Your task to perform on an android device: Open Google Chrome and open the bookmarks view Image 0: 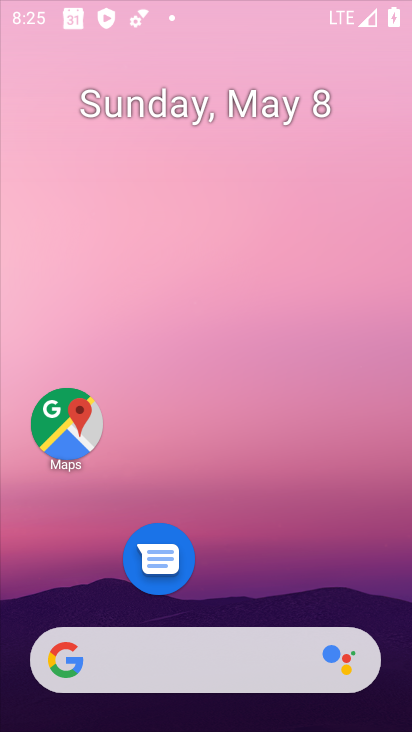
Step 0: drag from (316, 644) to (240, 6)
Your task to perform on an android device: Open Google Chrome and open the bookmarks view Image 1: 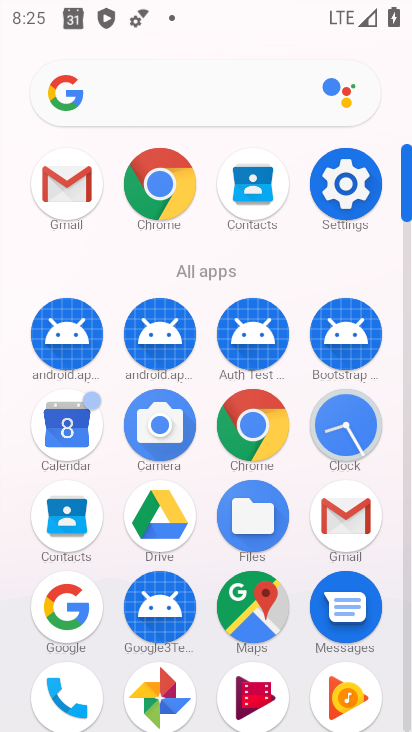
Step 1: drag from (290, 650) to (305, 175)
Your task to perform on an android device: Open Google Chrome and open the bookmarks view Image 2: 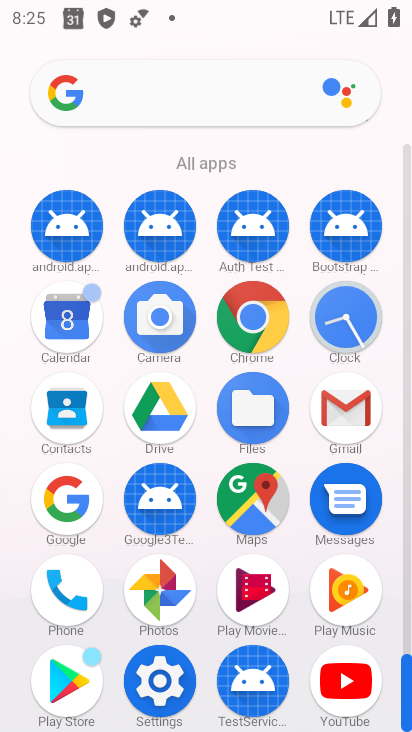
Step 2: click (176, 691)
Your task to perform on an android device: Open Google Chrome and open the bookmarks view Image 3: 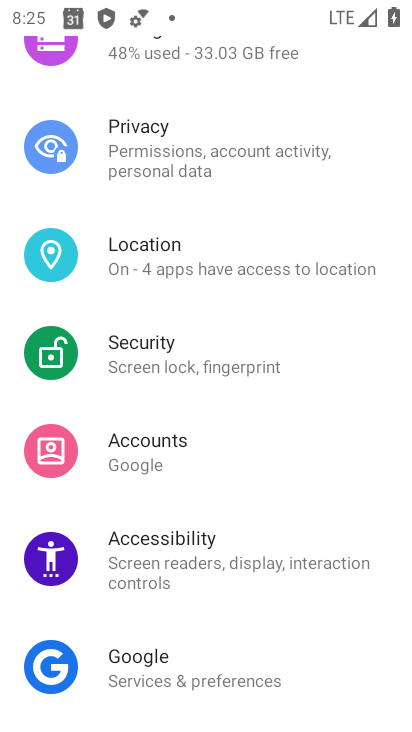
Step 3: press home button
Your task to perform on an android device: Open Google Chrome and open the bookmarks view Image 4: 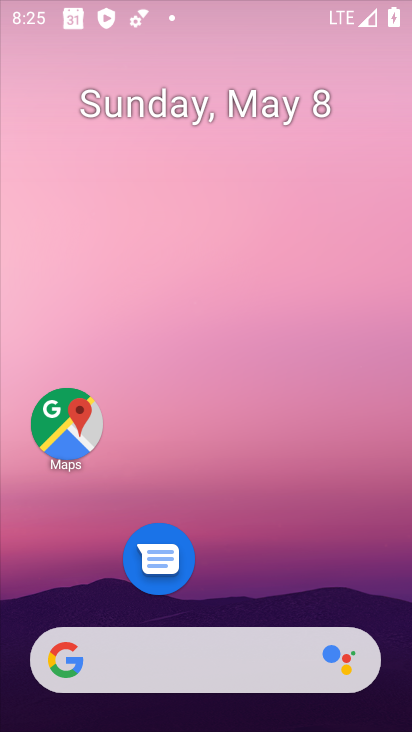
Step 4: drag from (268, 680) to (303, 135)
Your task to perform on an android device: Open Google Chrome and open the bookmarks view Image 5: 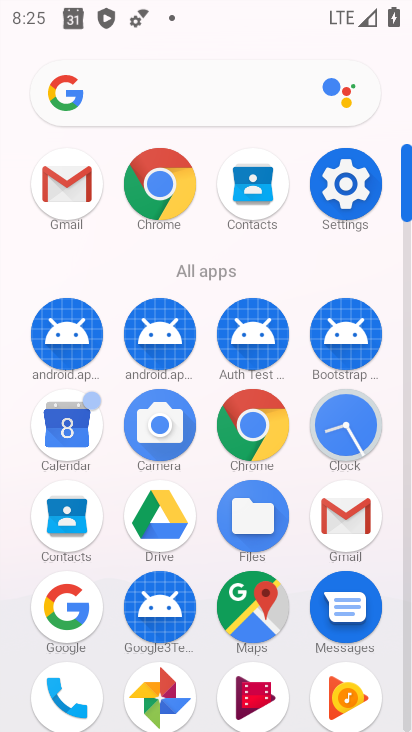
Step 5: click (259, 436)
Your task to perform on an android device: Open Google Chrome and open the bookmarks view Image 6: 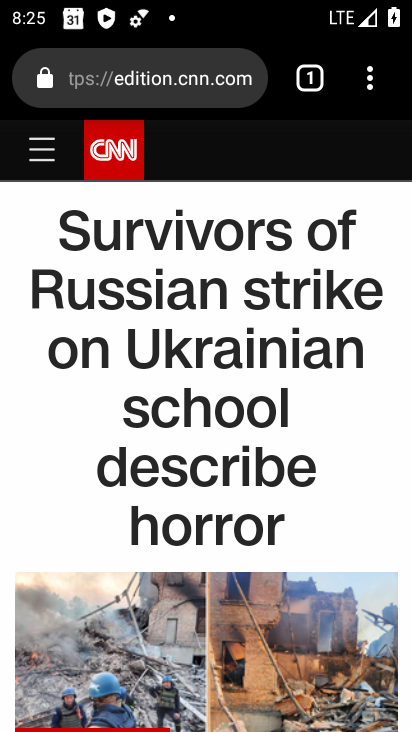
Step 6: task complete